Your task to perform on an android device: Go to Maps Image 0: 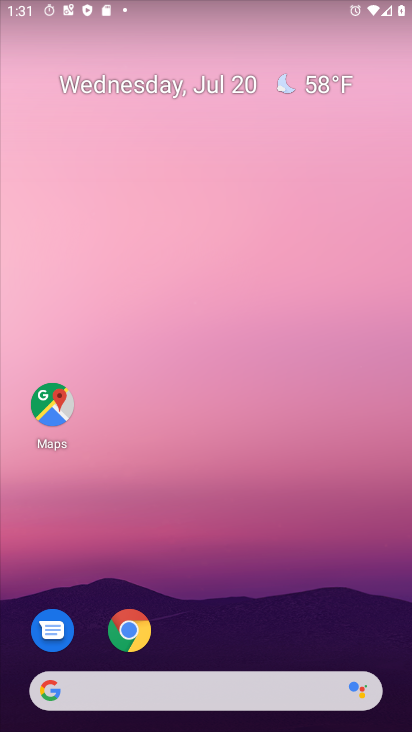
Step 0: press home button
Your task to perform on an android device: Go to Maps Image 1: 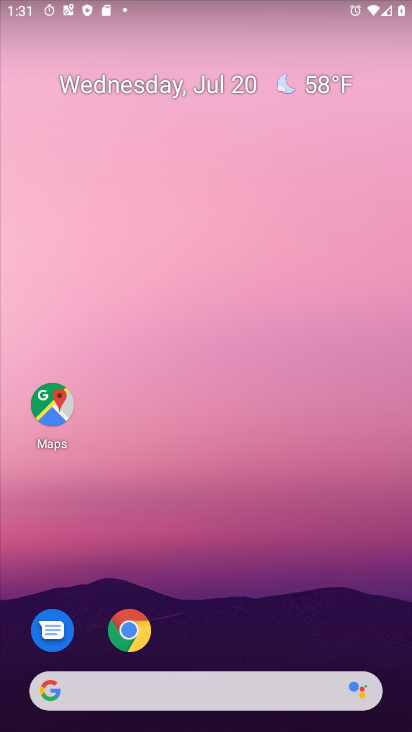
Step 1: click (50, 405)
Your task to perform on an android device: Go to Maps Image 2: 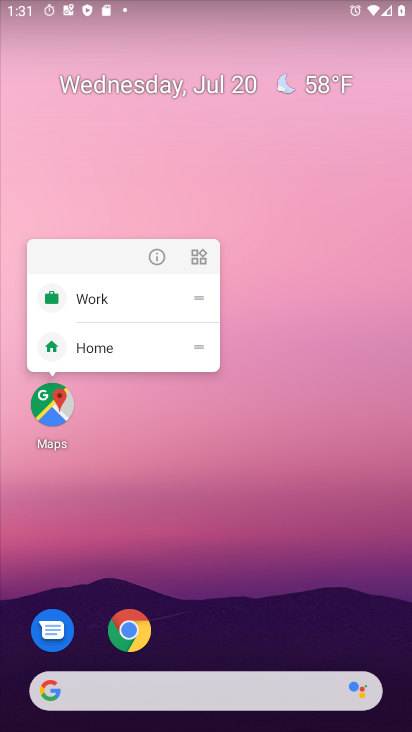
Step 2: click (50, 407)
Your task to perform on an android device: Go to Maps Image 3: 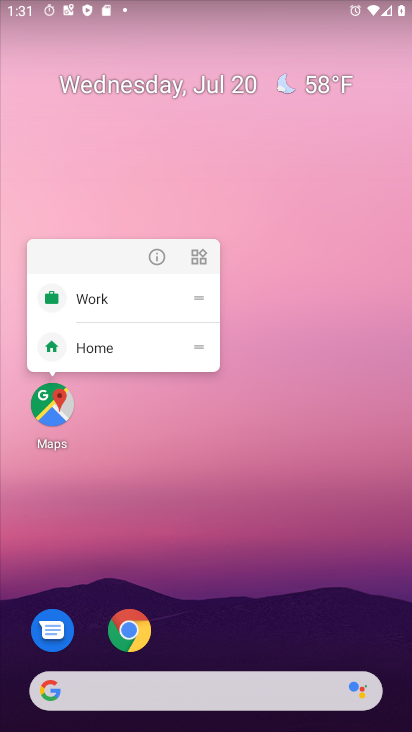
Step 3: click (50, 408)
Your task to perform on an android device: Go to Maps Image 4: 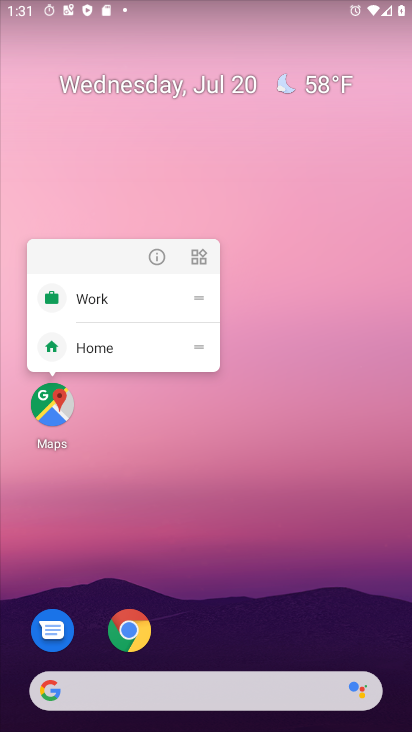
Step 4: click (50, 408)
Your task to perform on an android device: Go to Maps Image 5: 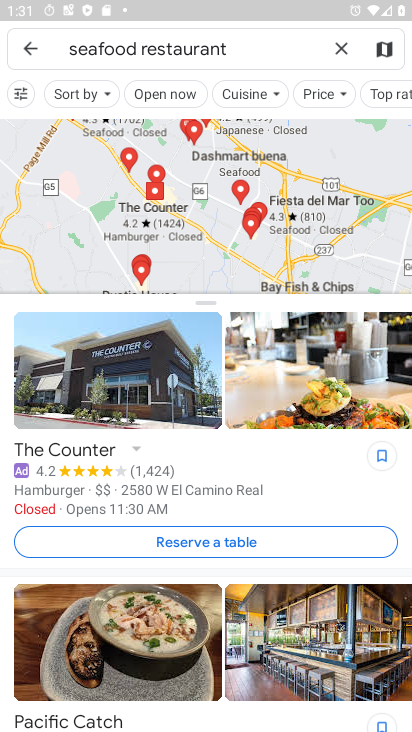
Step 5: click (31, 53)
Your task to perform on an android device: Go to Maps Image 6: 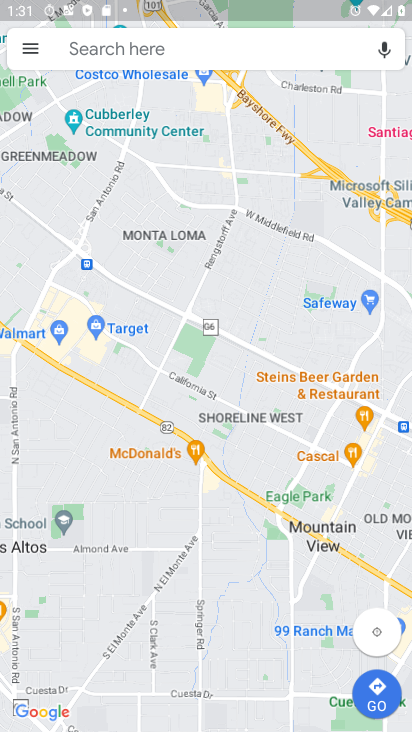
Step 6: task complete